Your task to perform on an android device: Open Chrome and go to settings Image 0: 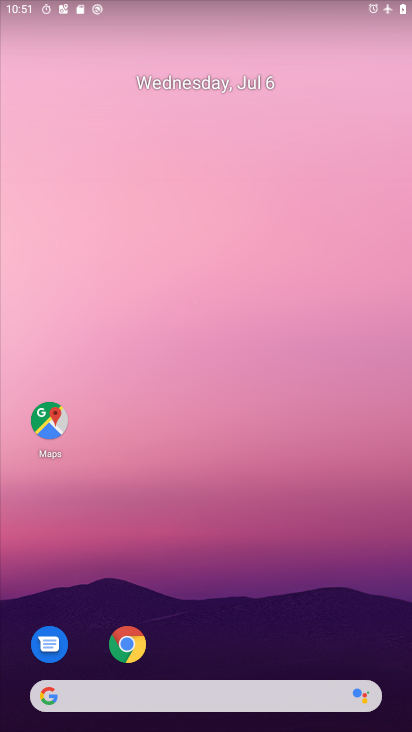
Step 0: drag from (181, 653) to (182, 109)
Your task to perform on an android device: Open Chrome and go to settings Image 1: 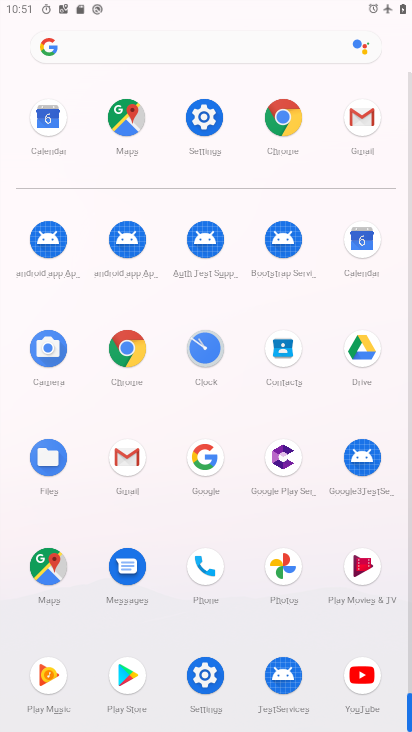
Step 1: click (283, 138)
Your task to perform on an android device: Open Chrome and go to settings Image 2: 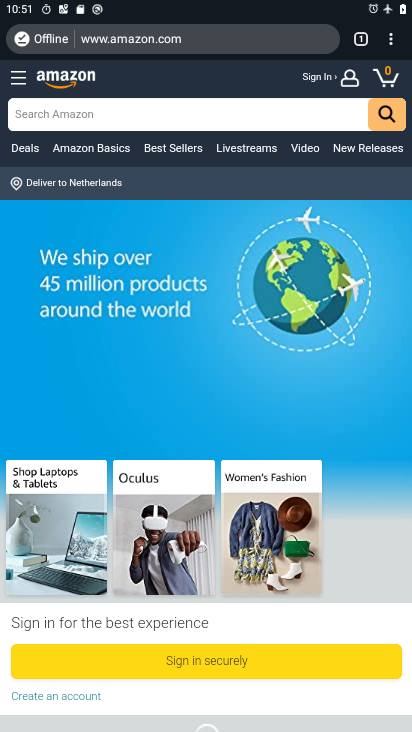
Step 2: click (390, 47)
Your task to perform on an android device: Open Chrome and go to settings Image 3: 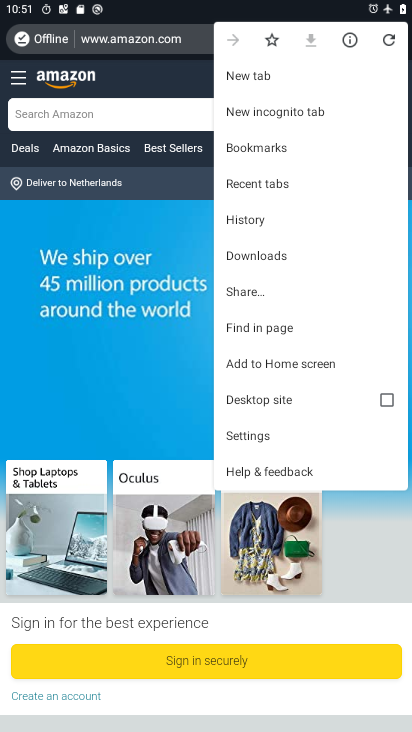
Step 3: click (261, 433)
Your task to perform on an android device: Open Chrome and go to settings Image 4: 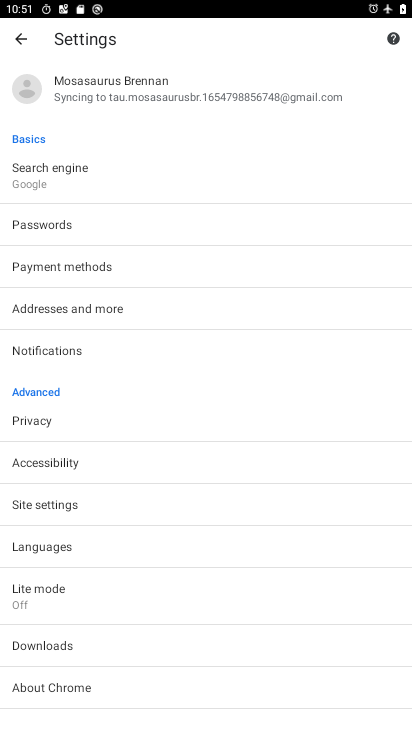
Step 4: task complete